Your task to perform on an android device: When is my next meeting? Image 0: 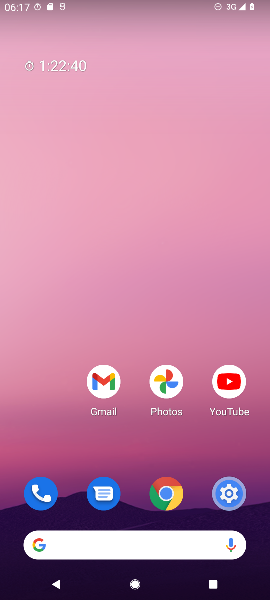
Step 0: press home button
Your task to perform on an android device: When is my next meeting? Image 1: 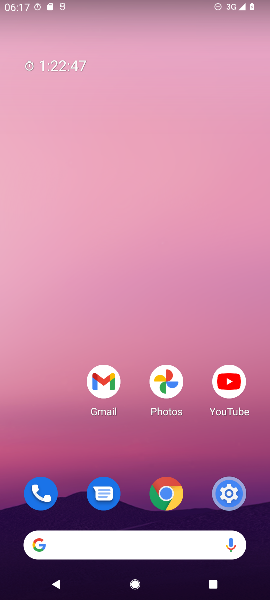
Step 1: drag from (67, 450) to (40, 71)
Your task to perform on an android device: When is my next meeting? Image 2: 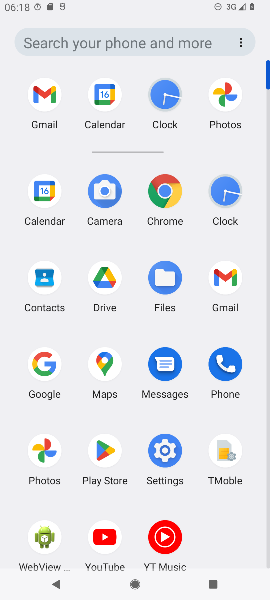
Step 2: click (44, 193)
Your task to perform on an android device: When is my next meeting? Image 3: 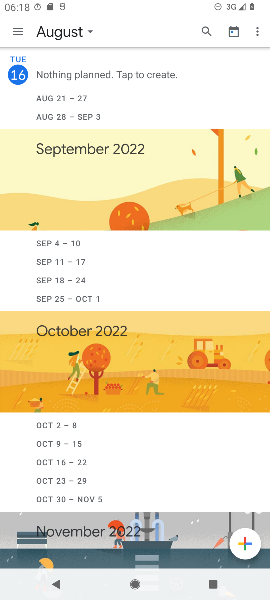
Step 3: task complete